Your task to perform on an android device: Open the calendar and show me this week's events? Image 0: 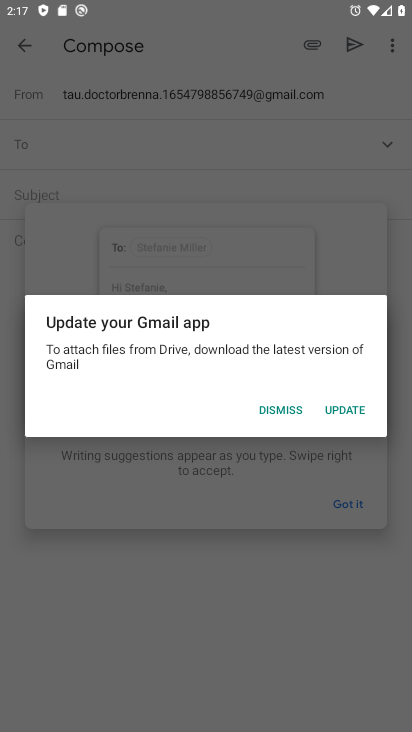
Step 0: press home button
Your task to perform on an android device: Open the calendar and show me this week's events? Image 1: 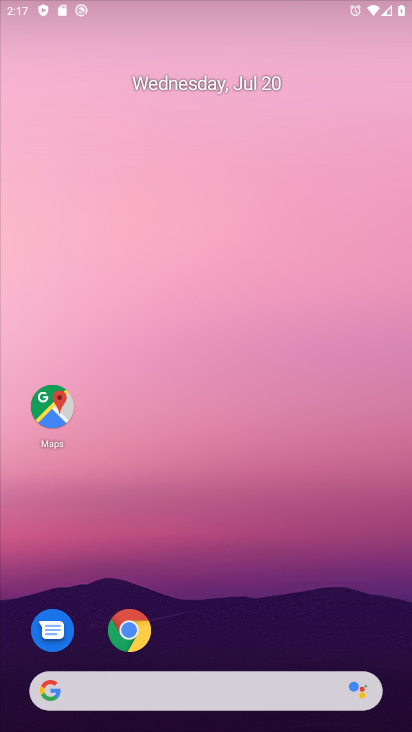
Step 1: drag from (23, 571) to (282, 128)
Your task to perform on an android device: Open the calendar and show me this week's events? Image 2: 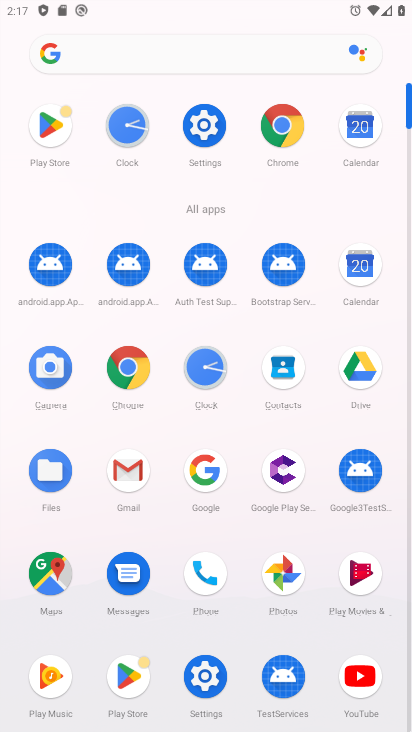
Step 2: click (355, 120)
Your task to perform on an android device: Open the calendar and show me this week's events? Image 3: 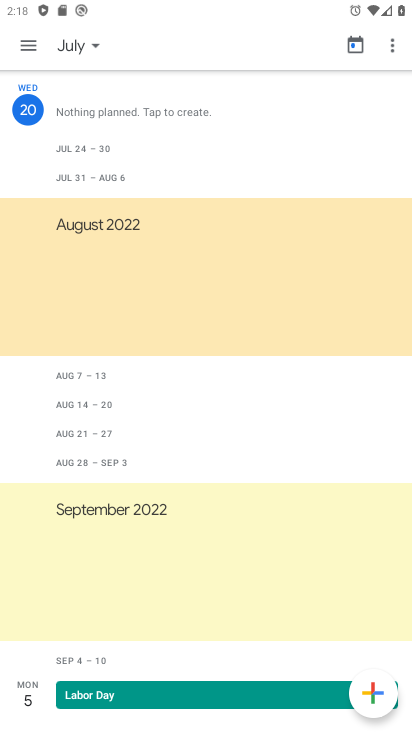
Step 3: task complete